Your task to perform on an android device: check google app version Image 0: 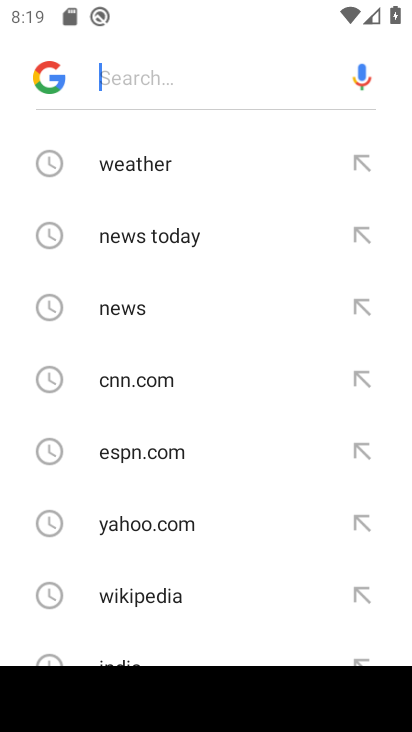
Step 0: press home button
Your task to perform on an android device: check google app version Image 1: 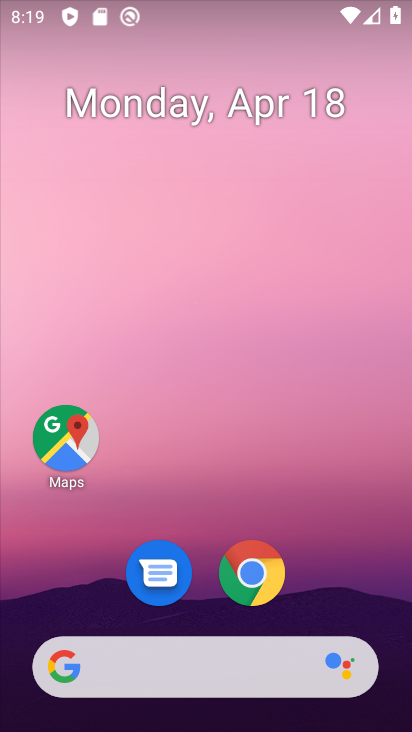
Step 1: drag from (345, 329) to (343, 115)
Your task to perform on an android device: check google app version Image 2: 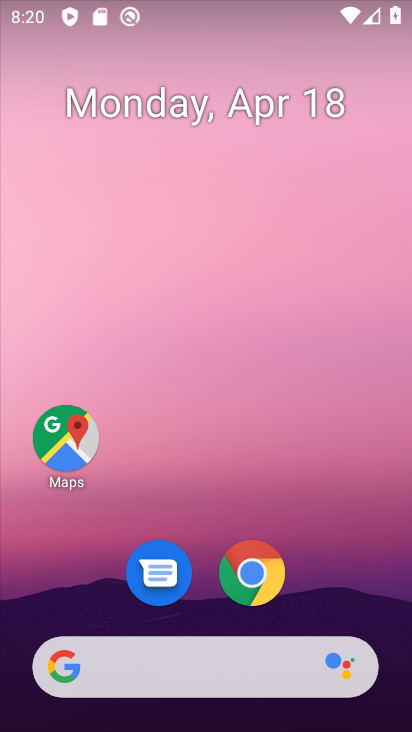
Step 2: drag from (221, 502) to (219, 114)
Your task to perform on an android device: check google app version Image 3: 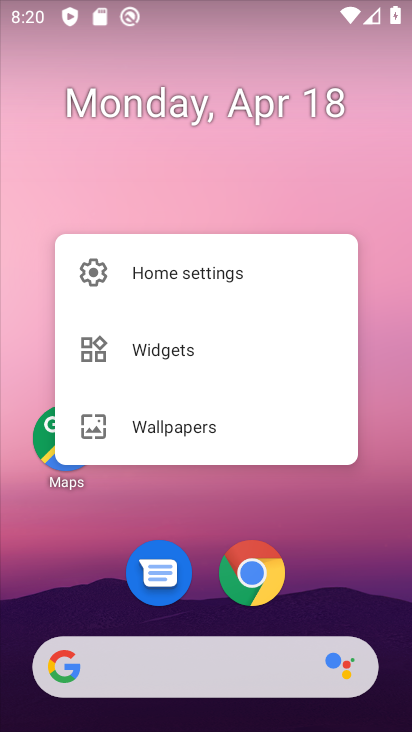
Step 3: drag from (215, 532) to (194, 186)
Your task to perform on an android device: check google app version Image 4: 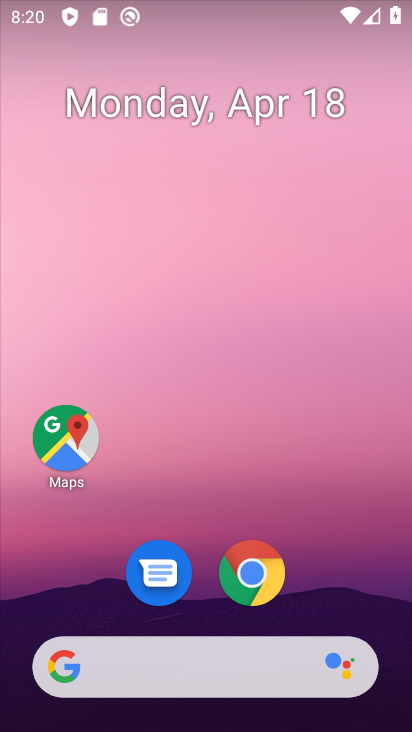
Step 4: drag from (338, 540) to (310, 187)
Your task to perform on an android device: check google app version Image 5: 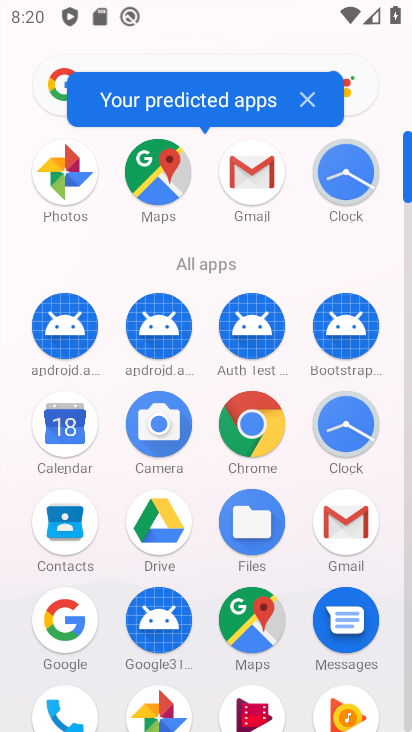
Step 5: click (74, 639)
Your task to perform on an android device: check google app version Image 6: 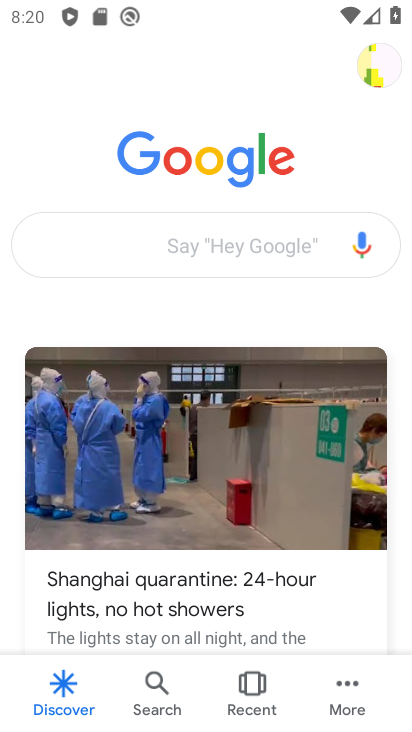
Step 6: click (340, 686)
Your task to perform on an android device: check google app version Image 7: 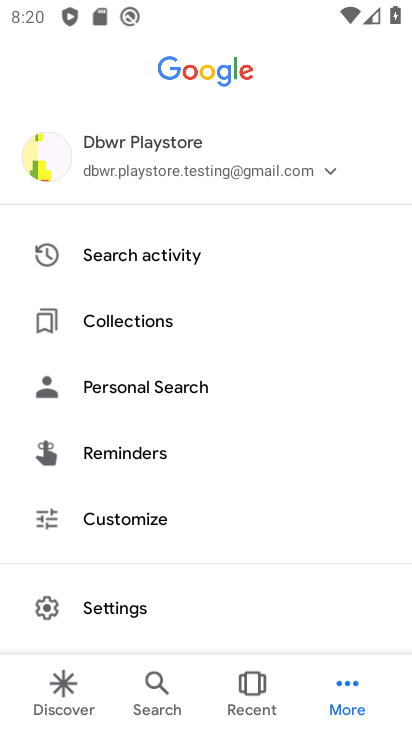
Step 7: drag from (160, 592) to (189, 323)
Your task to perform on an android device: check google app version Image 8: 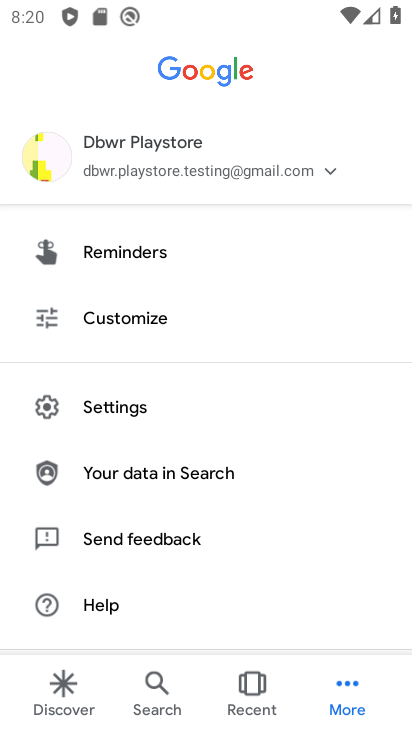
Step 8: click (111, 415)
Your task to perform on an android device: check google app version Image 9: 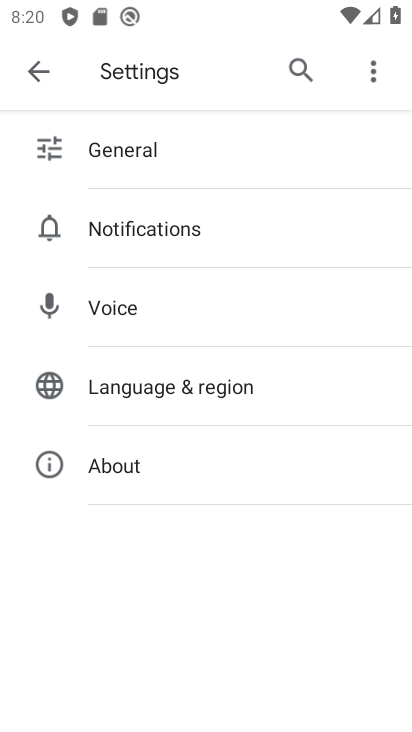
Step 9: click (129, 477)
Your task to perform on an android device: check google app version Image 10: 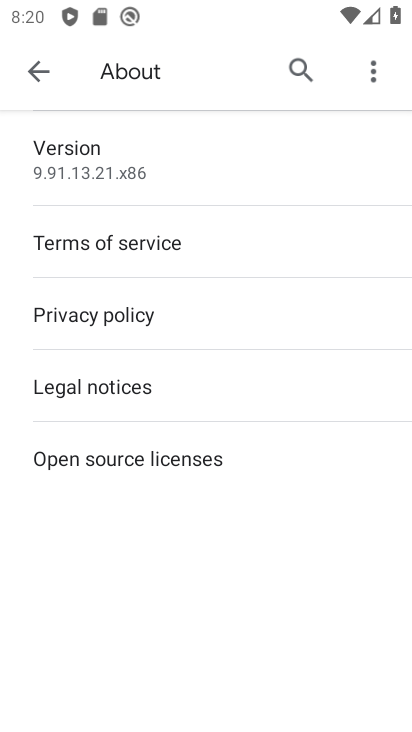
Step 10: task complete